Your task to perform on an android device: all mails in gmail Image 0: 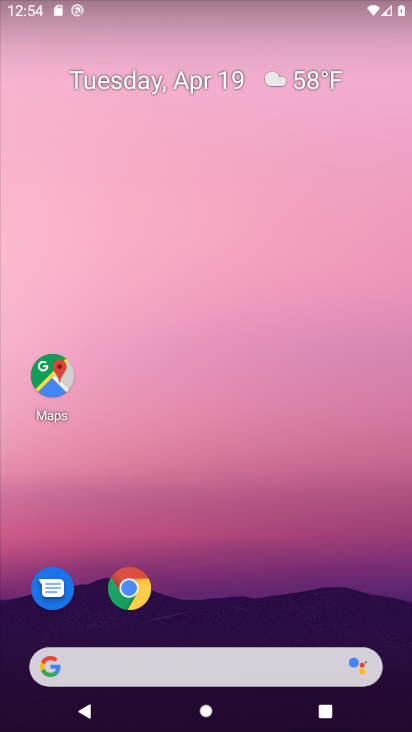
Step 0: drag from (215, 608) to (190, 152)
Your task to perform on an android device: all mails in gmail Image 1: 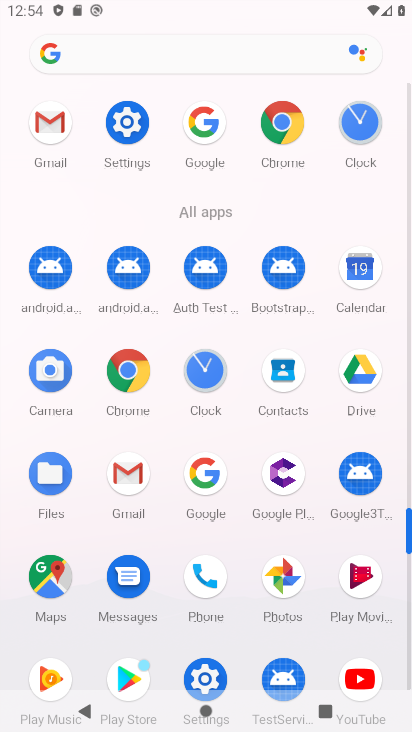
Step 1: click (63, 136)
Your task to perform on an android device: all mails in gmail Image 2: 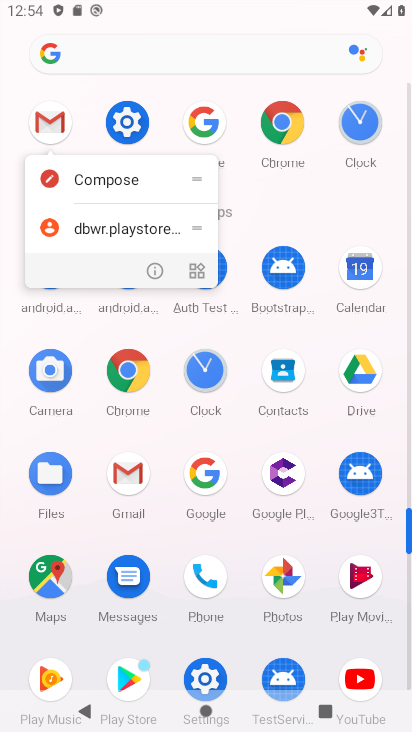
Step 2: click (44, 117)
Your task to perform on an android device: all mails in gmail Image 3: 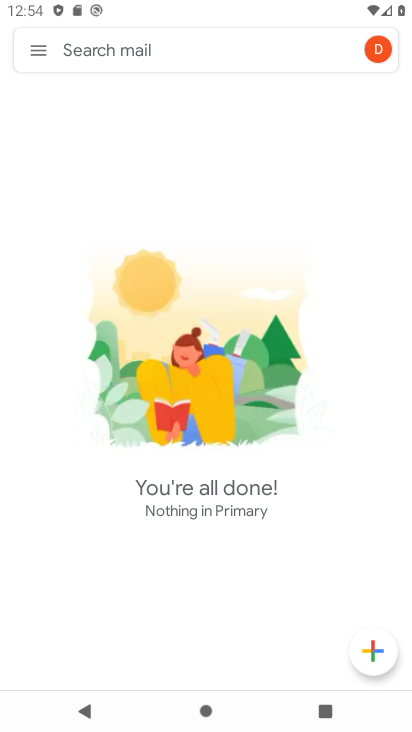
Step 3: click (41, 58)
Your task to perform on an android device: all mails in gmail Image 4: 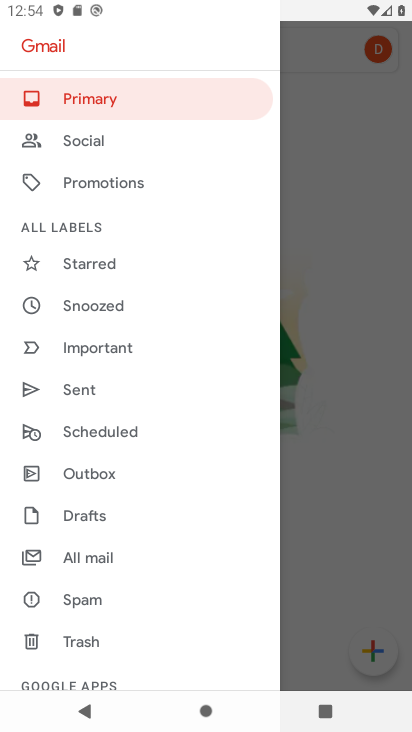
Step 4: click (84, 564)
Your task to perform on an android device: all mails in gmail Image 5: 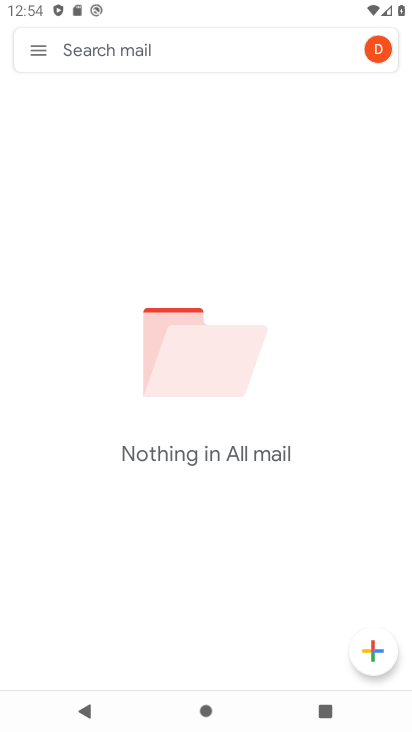
Step 5: task complete